Your task to perform on an android device: What's the news in Myanmar? Image 0: 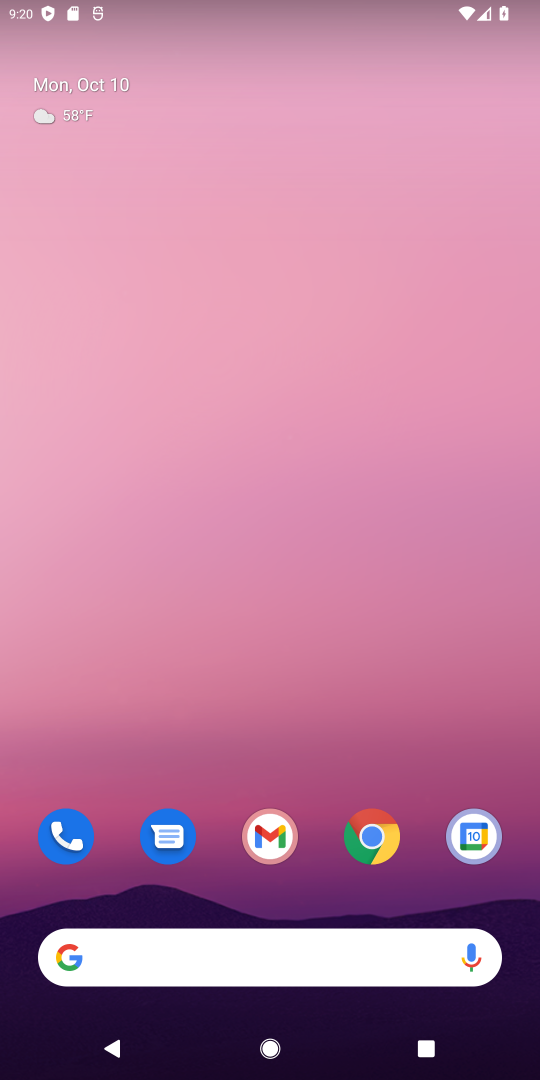
Step 0: drag from (299, 938) to (345, 205)
Your task to perform on an android device: What's the news in Myanmar? Image 1: 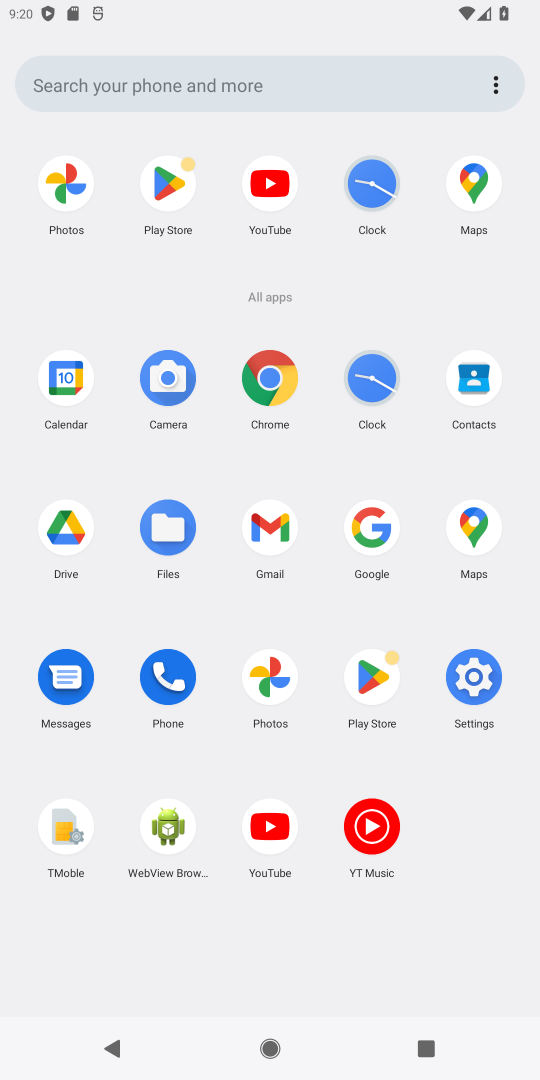
Step 1: click (368, 532)
Your task to perform on an android device: What's the news in Myanmar? Image 2: 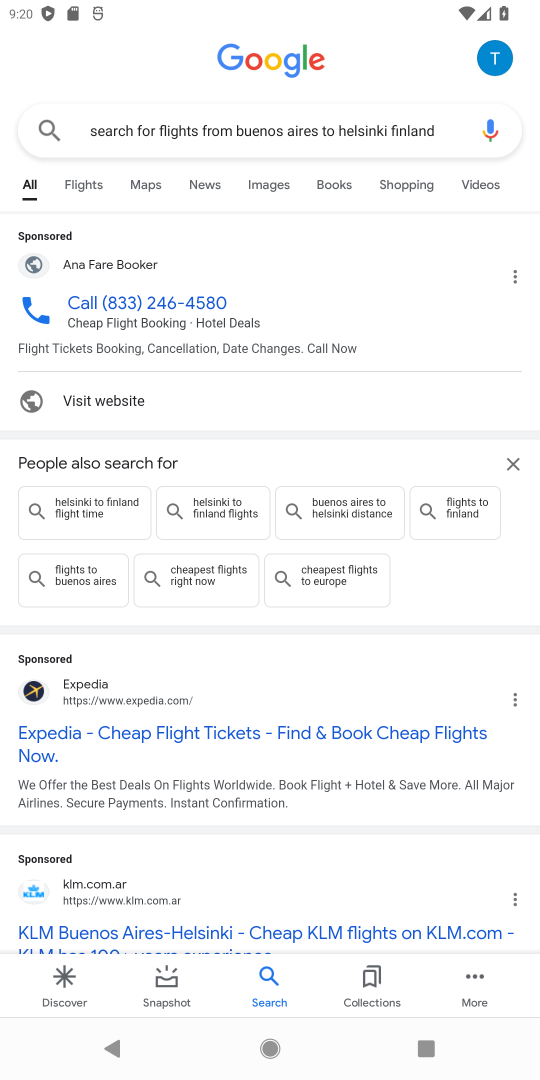
Step 2: click (316, 129)
Your task to perform on an android device: What's the news in Myanmar? Image 3: 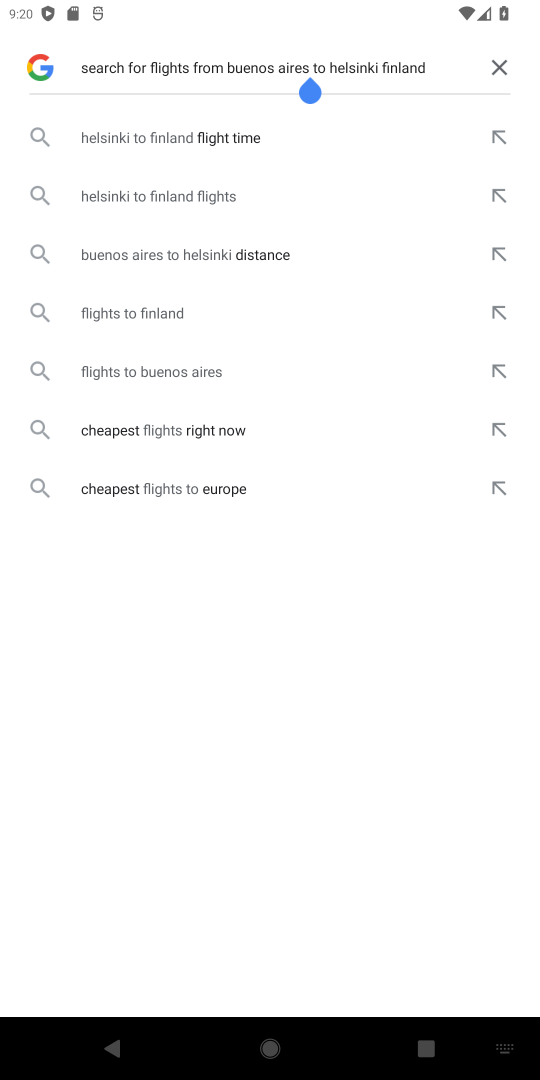
Step 3: click (501, 68)
Your task to perform on an android device: What's the news in Myanmar? Image 4: 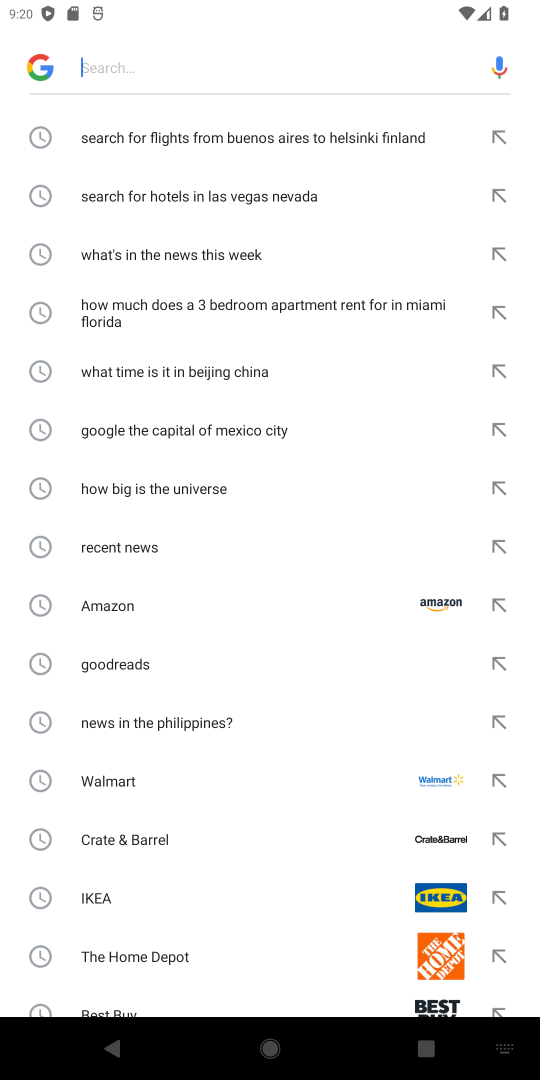
Step 4: type "What's the news in Myanmar?"
Your task to perform on an android device: What's the news in Myanmar? Image 5: 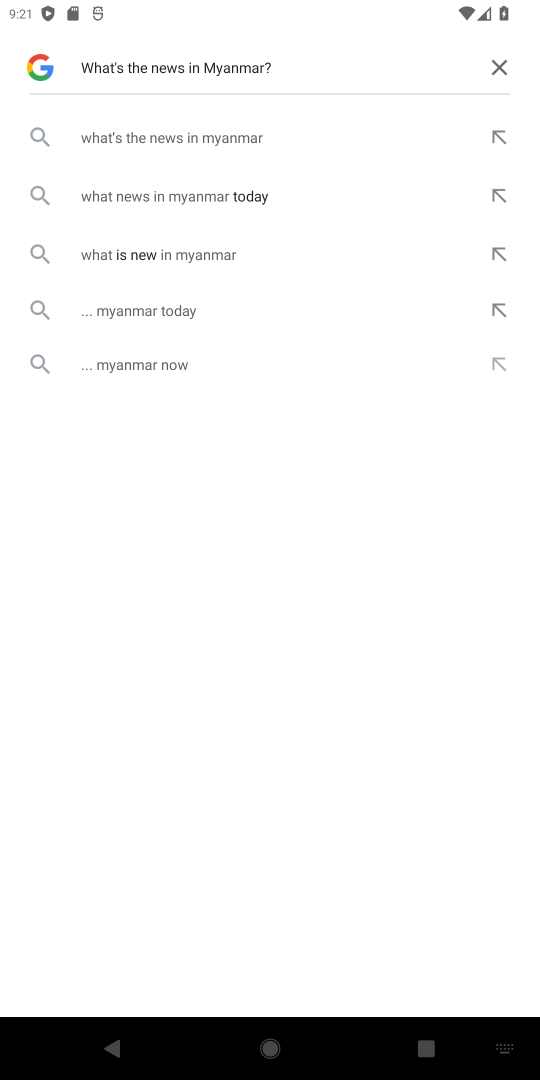
Step 5: click (200, 130)
Your task to perform on an android device: What's the news in Myanmar? Image 6: 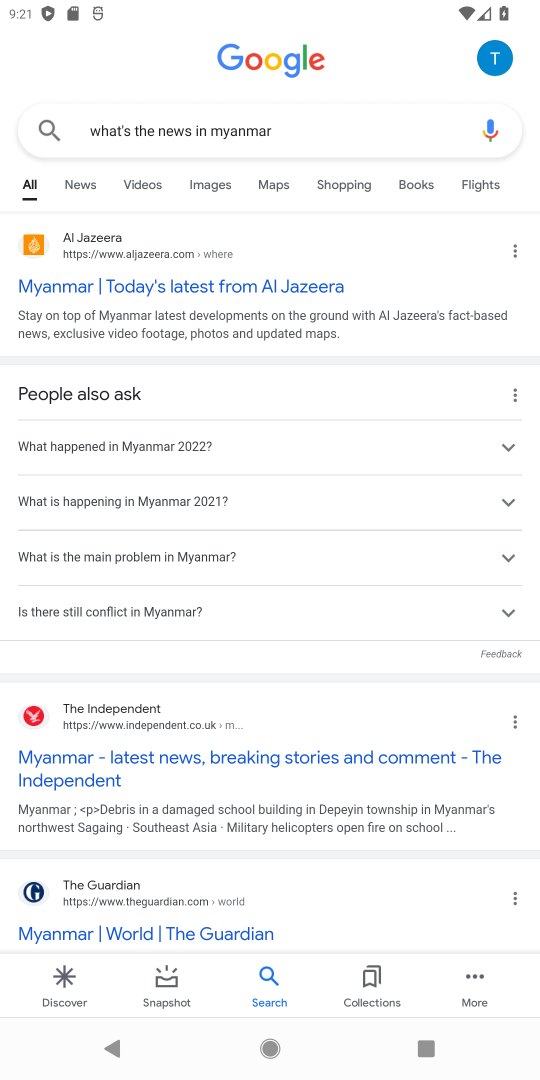
Step 6: click (141, 280)
Your task to perform on an android device: What's the news in Myanmar? Image 7: 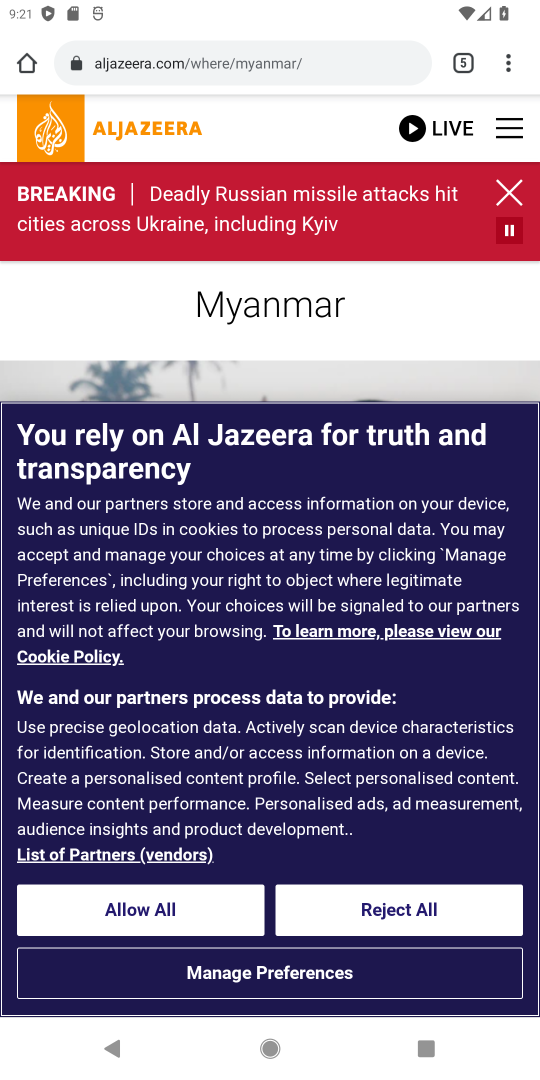
Step 7: task complete